Your task to perform on an android device: Do I have any events this weekend? Image 0: 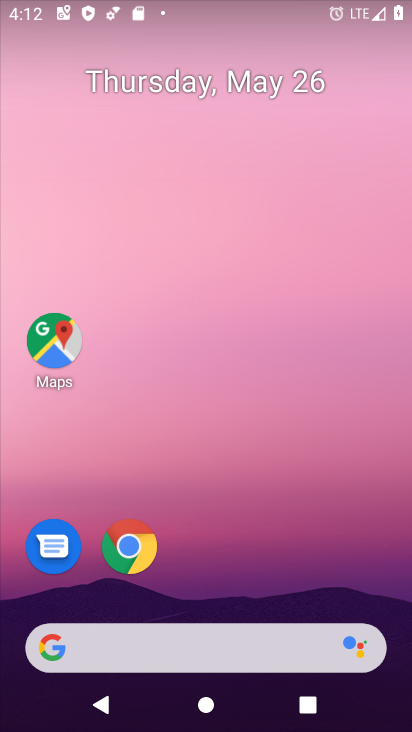
Step 0: drag from (260, 489) to (260, 35)
Your task to perform on an android device: Do I have any events this weekend? Image 1: 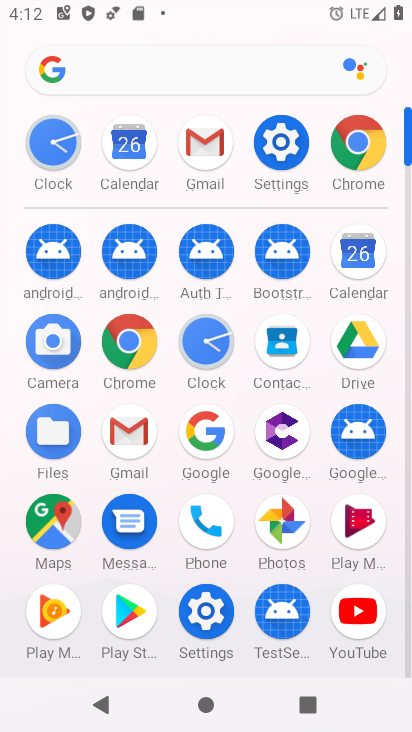
Step 1: click (209, 74)
Your task to perform on an android device: Do I have any events this weekend? Image 2: 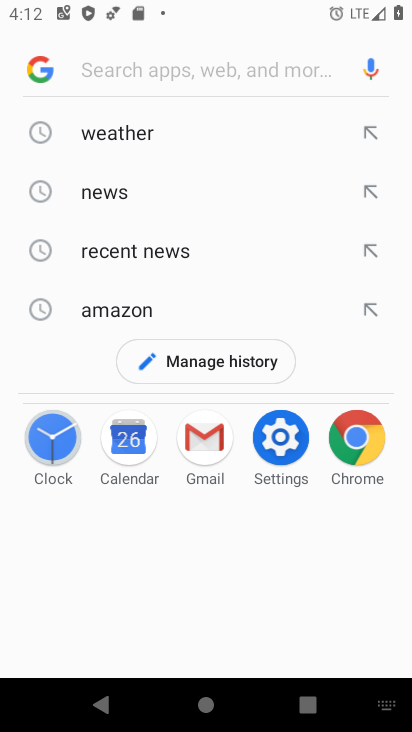
Step 2: click (128, 136)
Your task to perform on an android device: Do I have any events this weekend? Image 3: 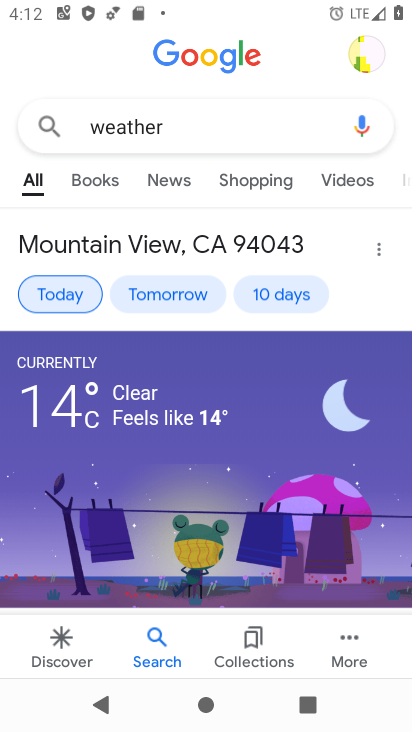
Step 3: click (259, 292)
Your task to perform on an android device: Do I have any events this weekend? Image 4: 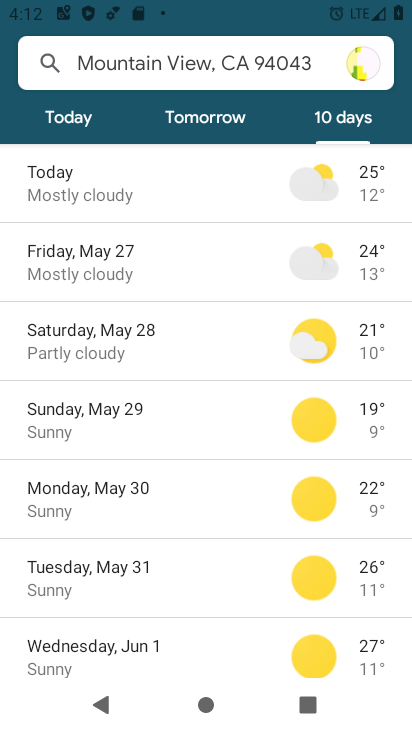
Step 4: task complete